Your task to perform on an android device: turn on translation in the chrome app Image 0: 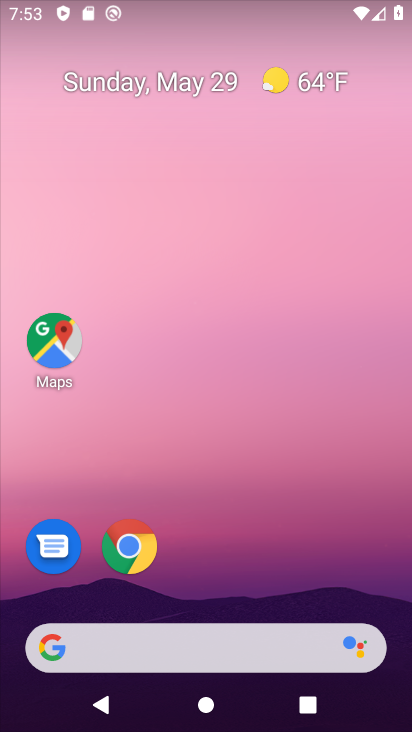
Step 0: drag from (281, 606) to (241, 148)
Your task to perform on an android device: turn on translation in the chrome app Image 1: 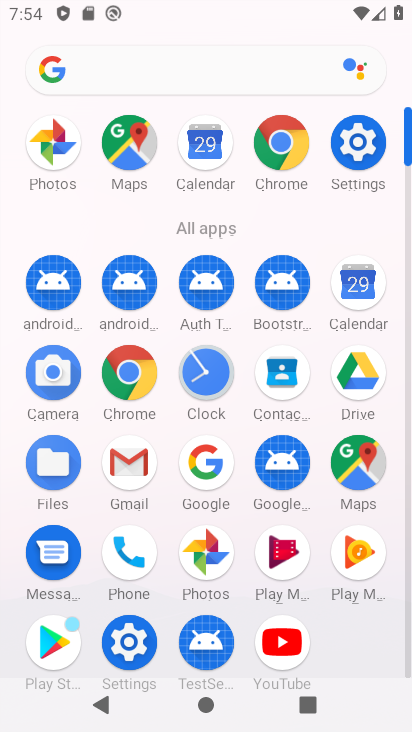
Step 1: click (282, 125)
Your task to perform on an android device: turn on translation in the chrome app Image 2: 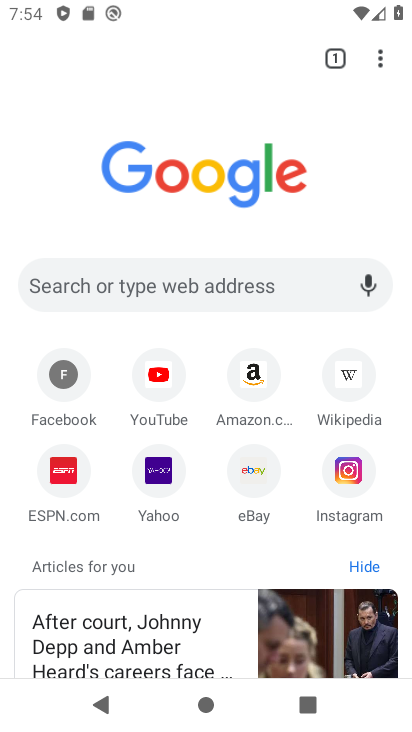
Step 2: click (375, 62)
Your task to perform on an android device: turn on translation in the chrome app Image 3: 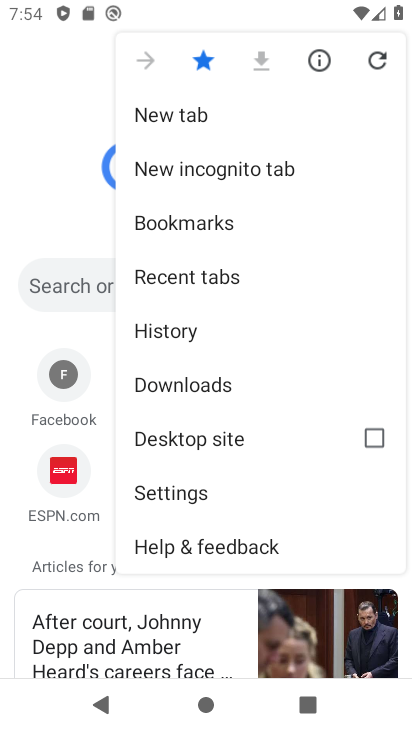
Step 3: click (190, 483)
Your task to perform on an android device: turn on translation in the chrome app Image 4: 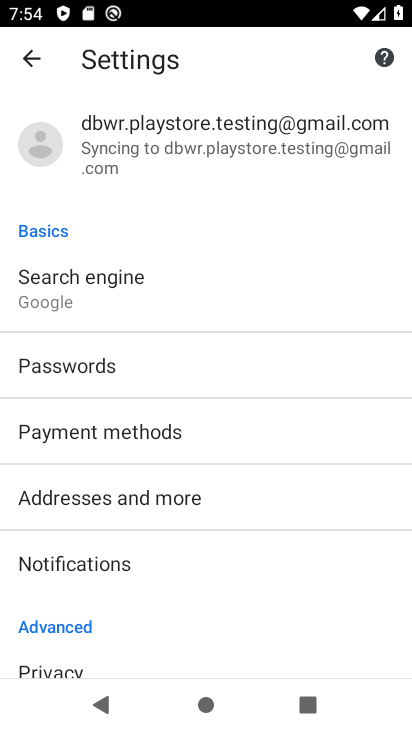
Step 4: drag from (211, 653) to (214, 177)
Your task to perform on an android device: turn on translation in the chrome app Image 5: 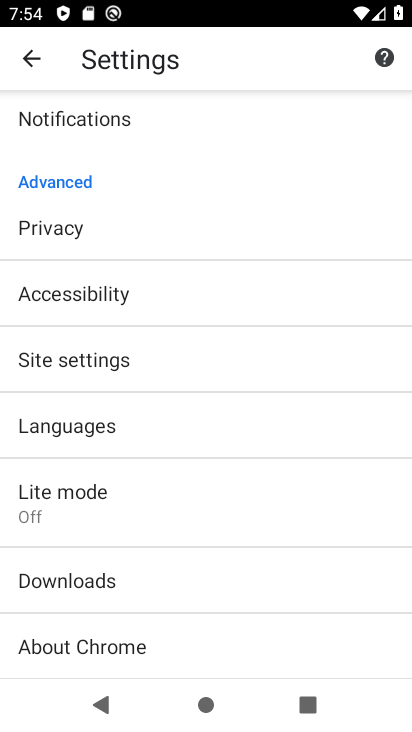
Step 5: click (155, 412)
Your task to perform on an android device: turn on translation in the chrome app Image 6: 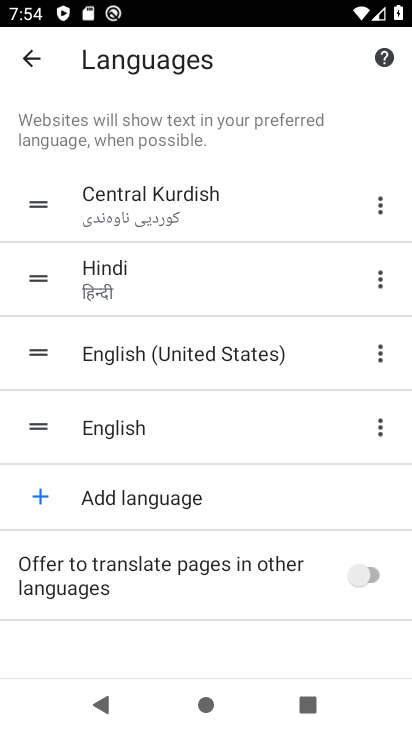
Step 6: click (370, 576)
Your task to perform on an android device: turn on translation in the chrome app Image 7: 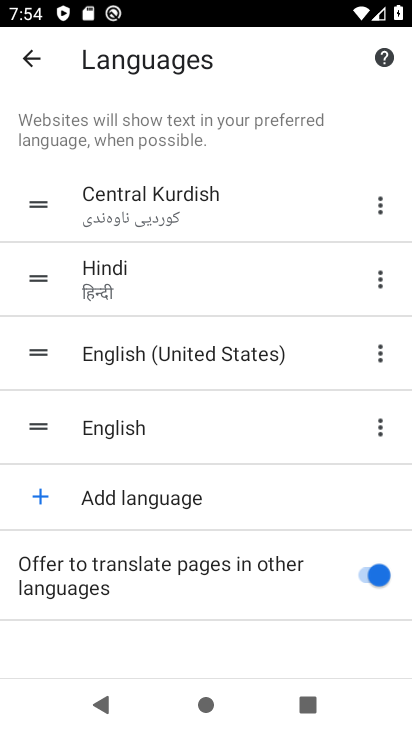
Step 7: task complete